Your task to perform on an android device: Open the phone app and click the voicemail tab. Image 0: 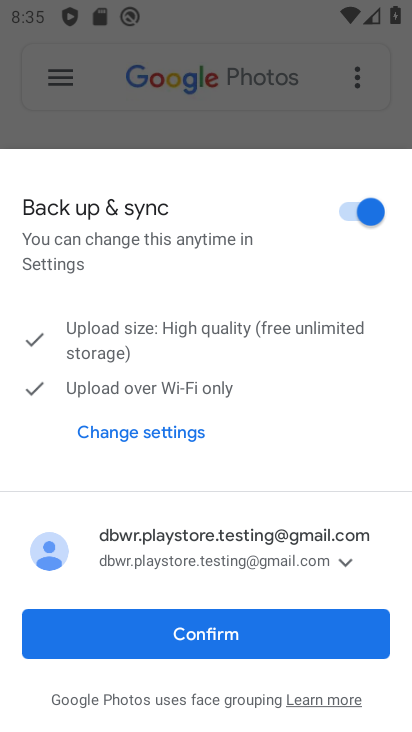
Step 0: press home button
Your task to perform on an android device: Open the phone app and click the voicemail tab. Image 1: 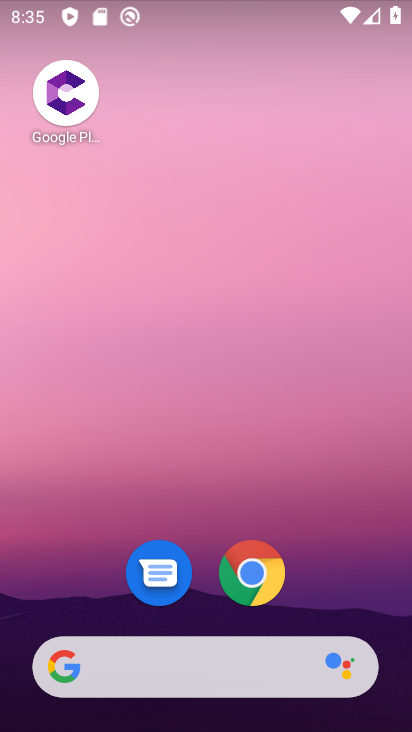
Step 1: drag from (198, 618) to (203, 191)
Your task to perform on an android device: Open the phone app and click the voicemail tab. Image 2: 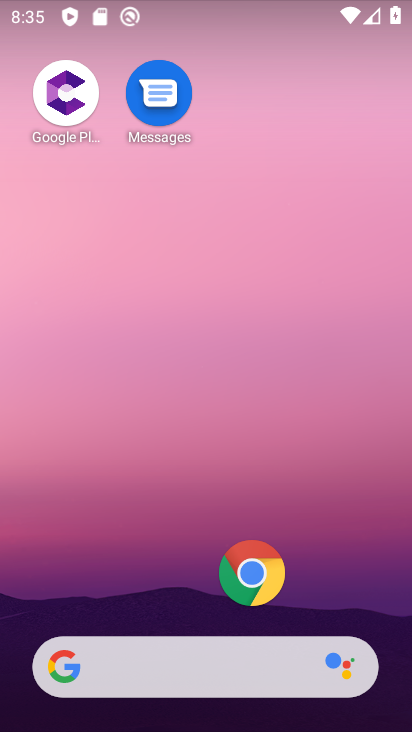
Step 2: press home button
Your task to perform on an android device: Open the phone app and click the voicemail tab. Image 3: 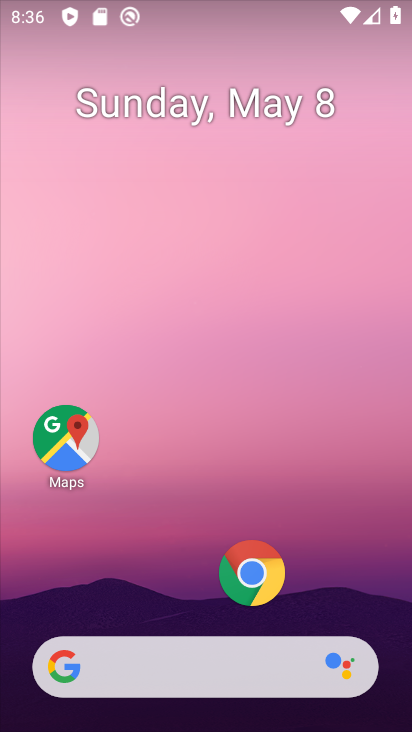
Step 3: drag from (137, 617) to (133, 169)
Your task to perform on an android device: Open the phone app and click the voicemail tab. Image 4: 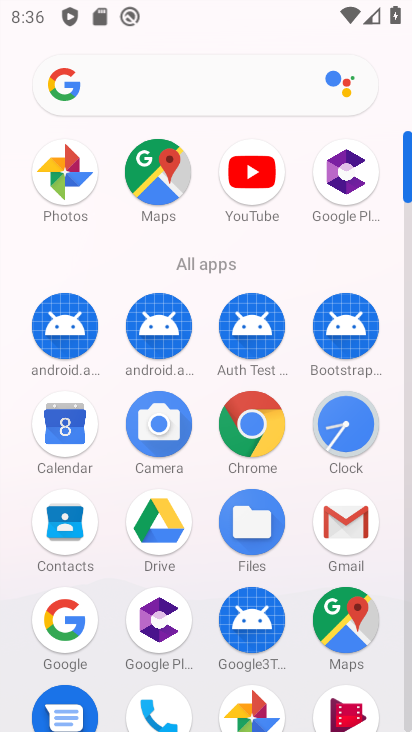
Step 4: drag from (201, 564) to (220, 320)
Your task to perform on an android device: Open the phone app and click the voicemail tab. Image 5: 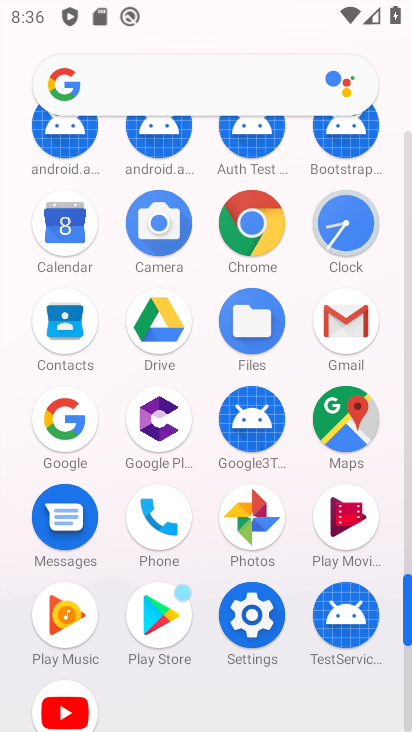
Step 5: click (167, 513)
Your task to perform on an android device: Open the phone app and click the voicemail tab. Image 6: 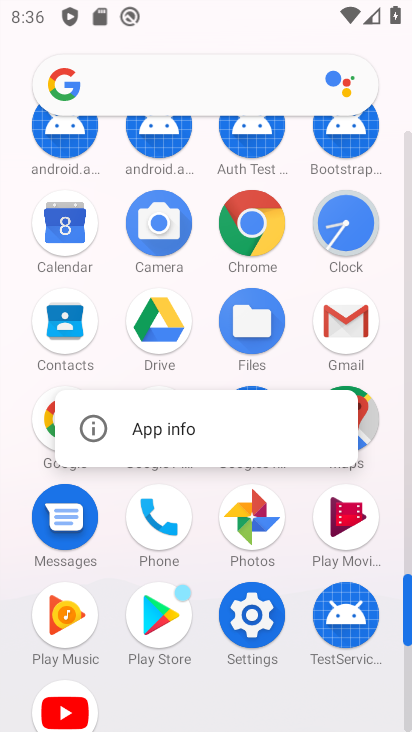
Step 6: click (157, 513)
Your task to perform on an android device: Open the phone app and click the voicemail tab. Image 7: 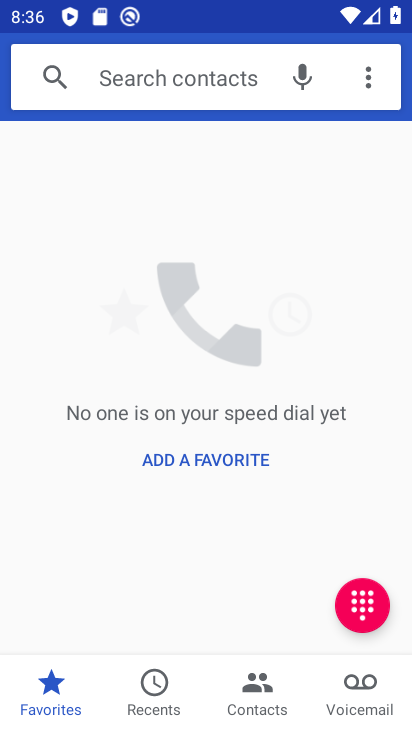
Step 7: click (349, 708)
Your task to perform on an android device: Open the phone app and click the voicemail tab. Image 8: 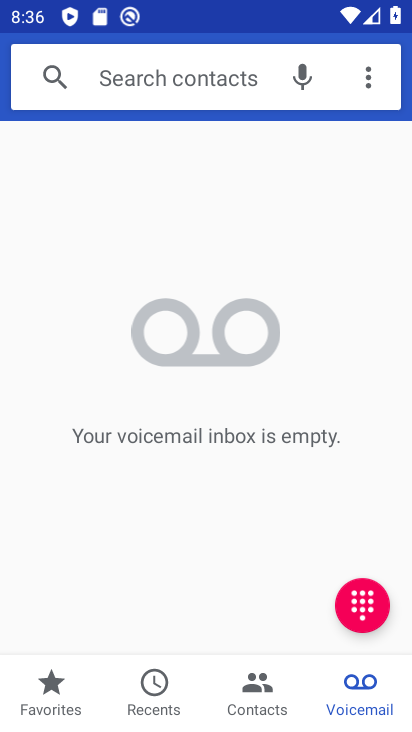
Step 8: task complete